Your task to perform on an android device: see sites visited before in the chrome app Image 0: 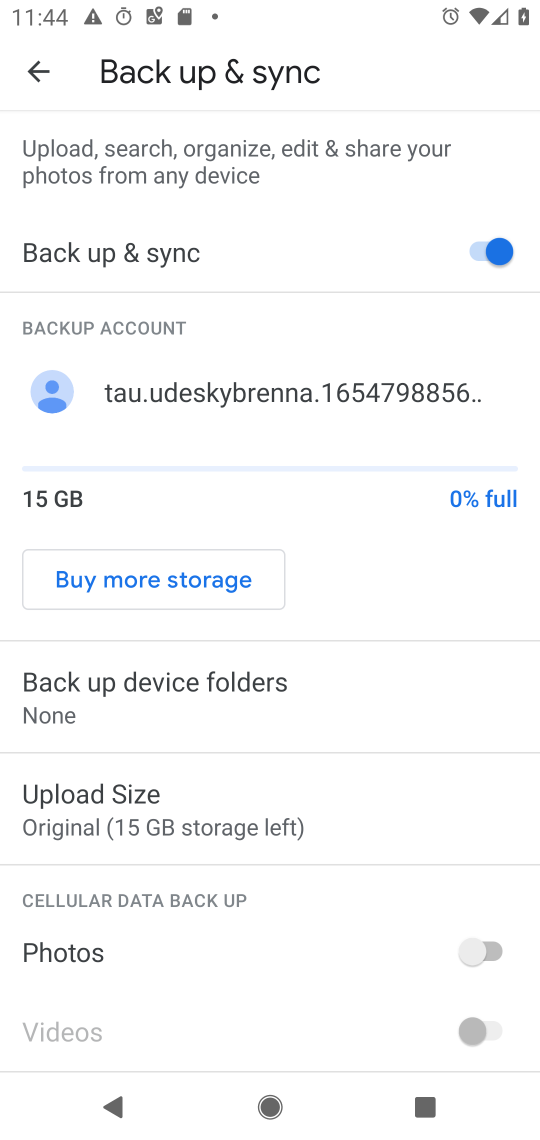
Step 0: press home button
Your task to perform on an android device: see sites visited before in the chrome app Image 1: 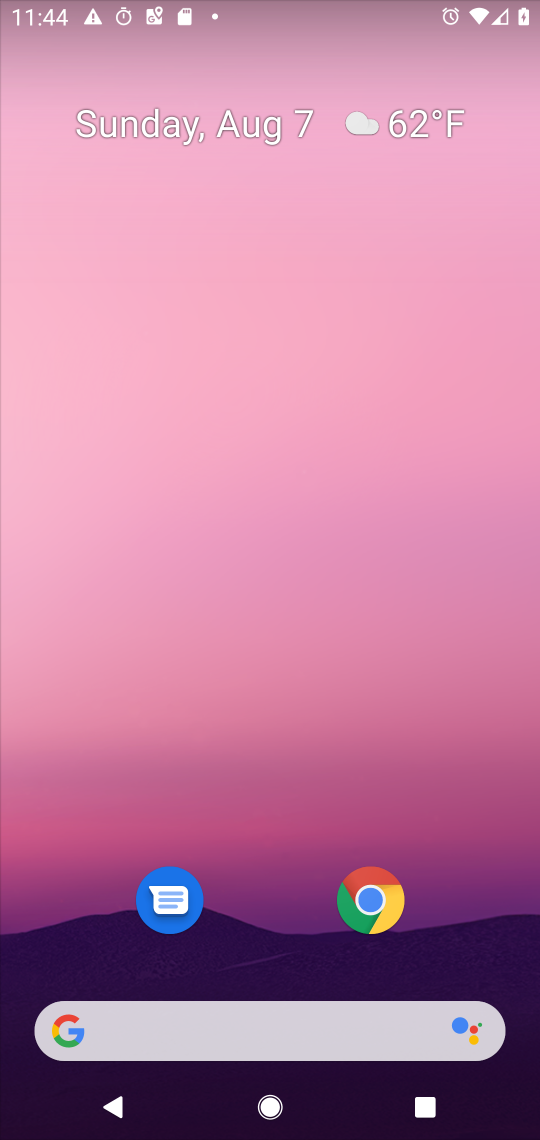
Step 1: click (366, 893)
Your task to perform on an android device: see sites visited before in the chrome app Image 2: 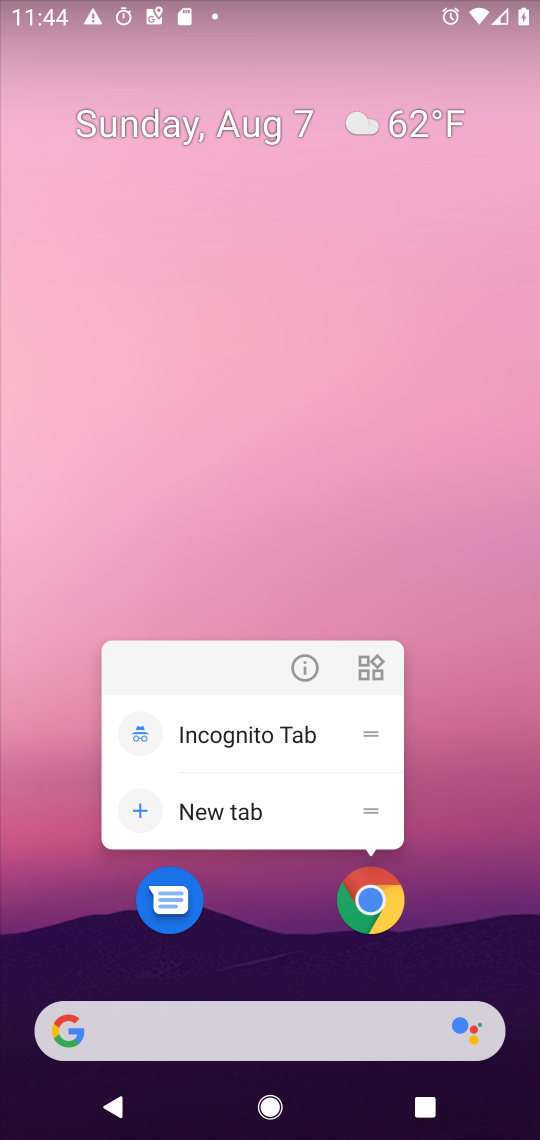
Step 2: click (442, 911)
Your task to perform on an android device: see sites visited before in the chrome app Image 3: 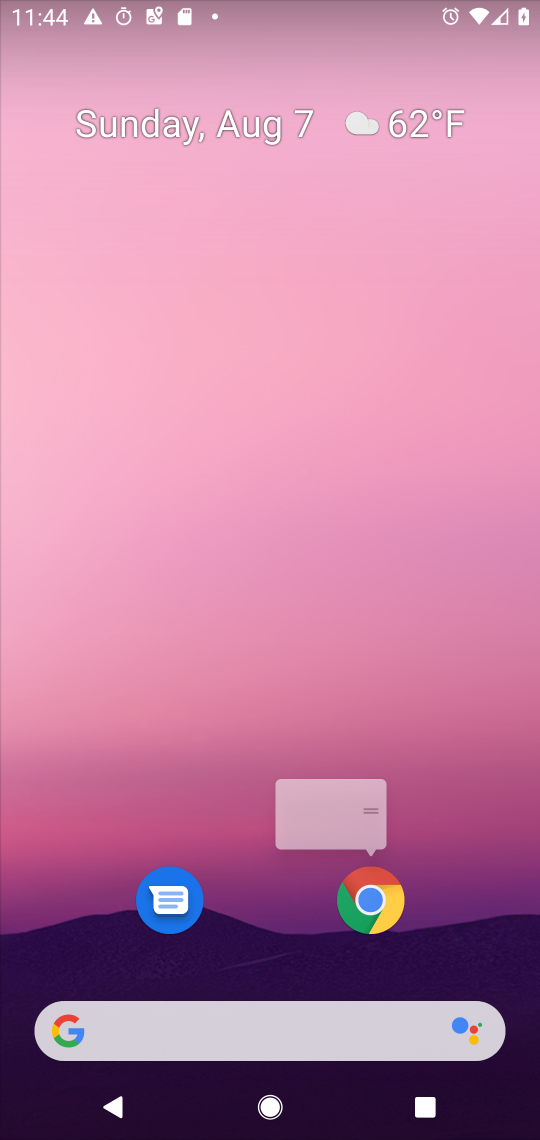
Step 3: drag from (462, 952) to (457, 202)
Your task to perform on an android device: see sites visited before in the chrome app Image 4: 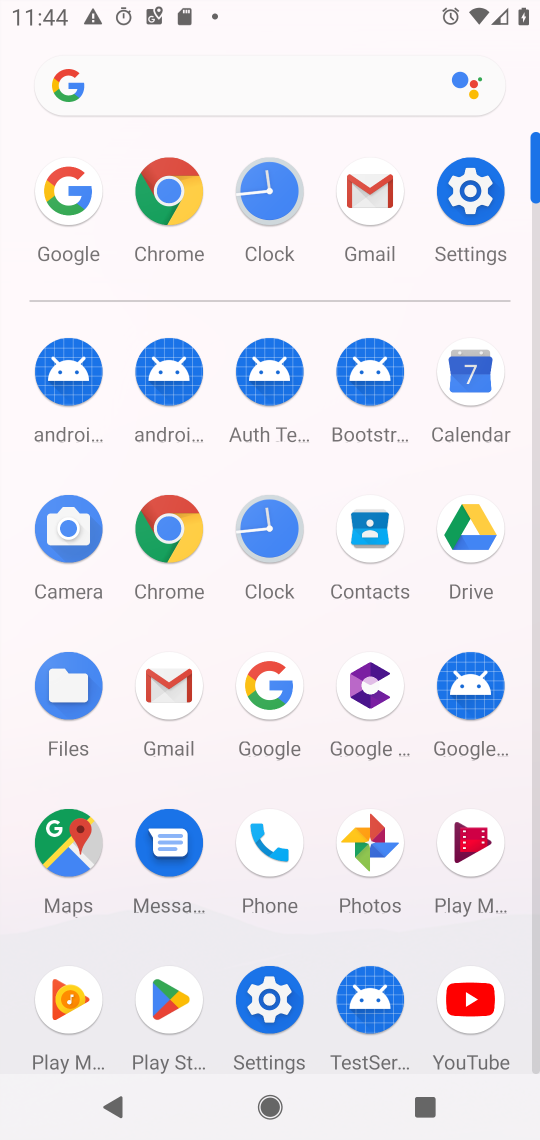
Step 4: click (167, 182)
Your task to perform on an android device: see sites visited before in the chrome app Image 5: 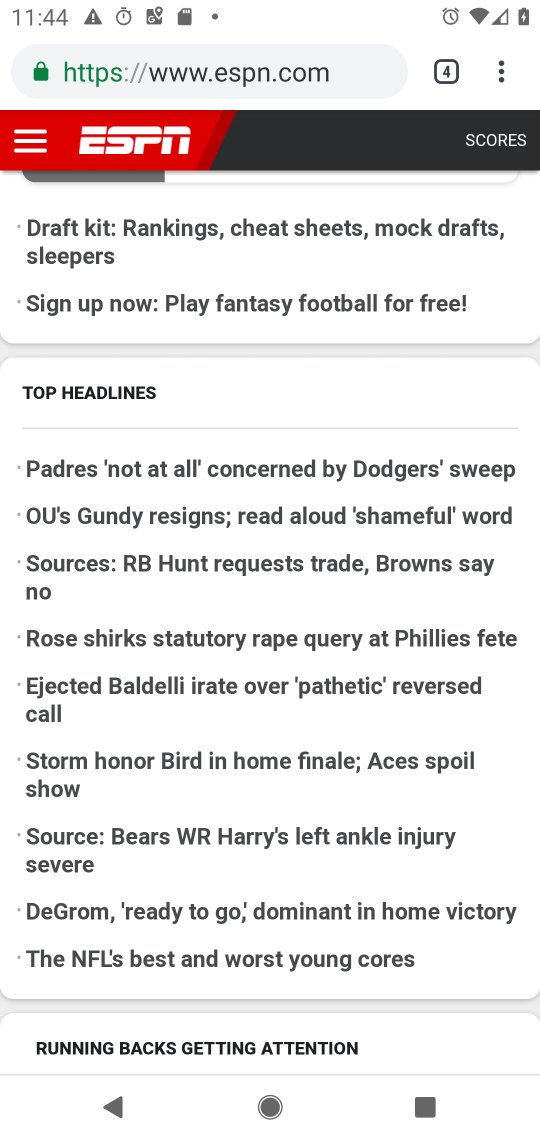
Step 5: click (499, 67)
Your task to perform on an android device: see sites visited before in the chrome app Image 6: 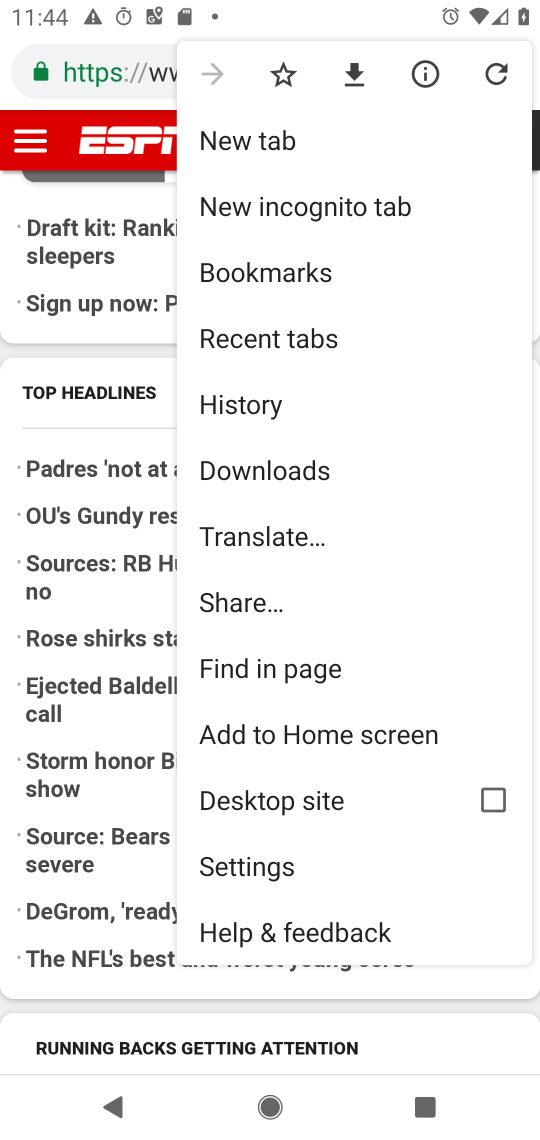
Step 6: click (293, 399)
Your task to perform on an android device: see sites visited before in the chrome app Image 7: 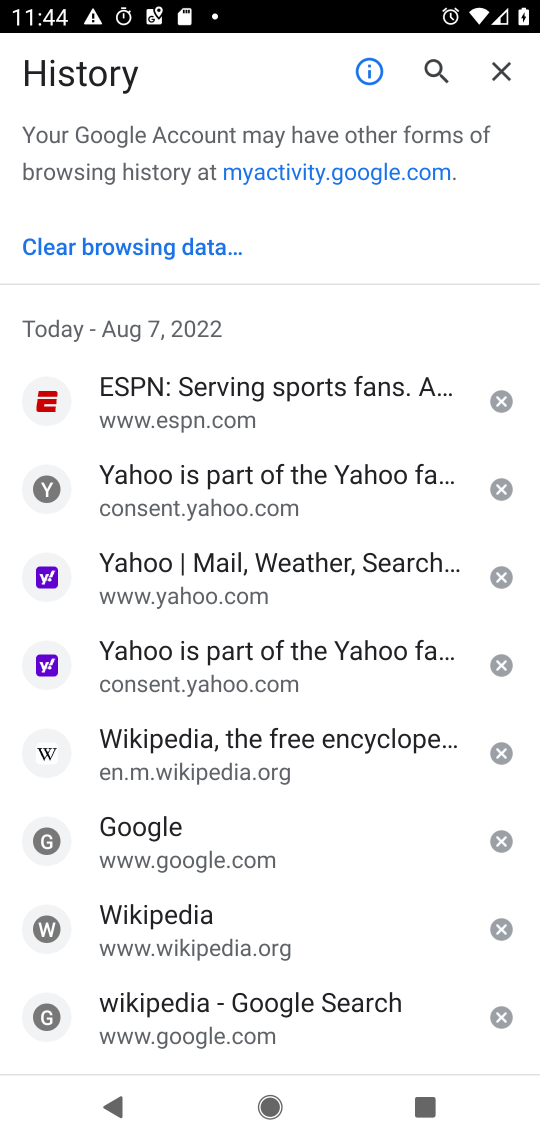
Step 7: task complete